Your task to perform on an android device: remove spam from my inbox in the gmail app Image 0: 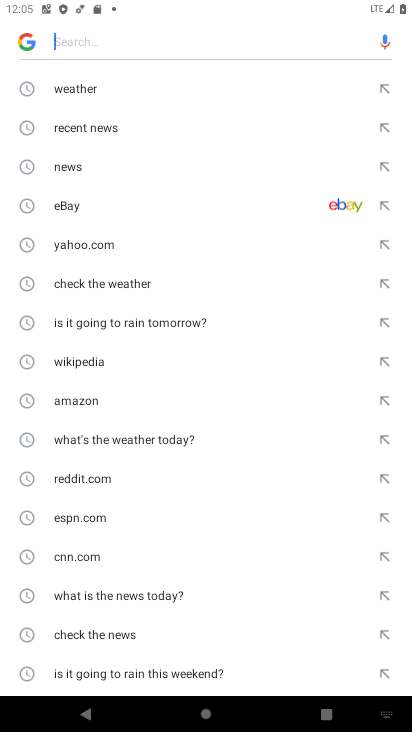
Step 0: press home button
Your task to perform on an android device: remove spam from my inbox in the gmail app Image 1: 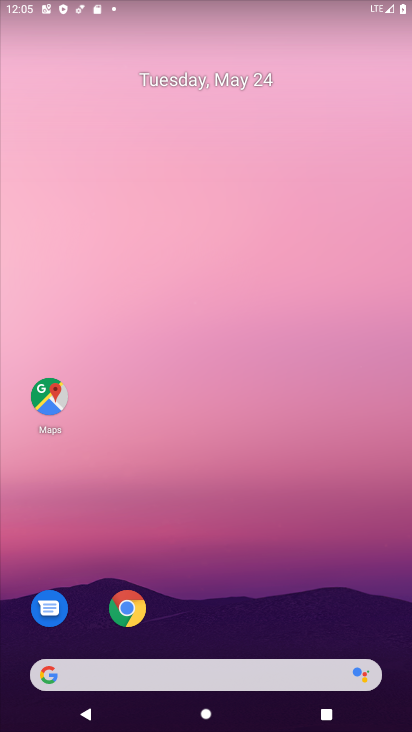
Step 1: drag from (206, 635) to (228, 42)
Your task to perform on an android device: remove spam from my inbox in the gmail app Image 2: 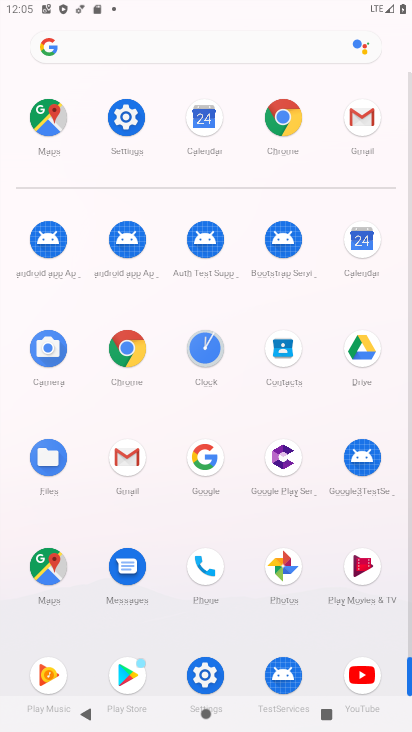
Step 2: click (361, 112)
Your task to perform on an android device: remove spam from my inbox in the gmail app Image 3: 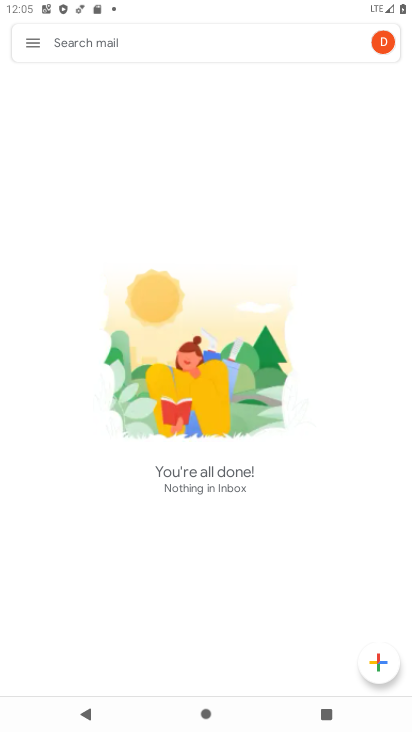
Step 3: click (41, 37)
Your task to perform on an android device: remove spam from my inbox in the gmail app Image 4: 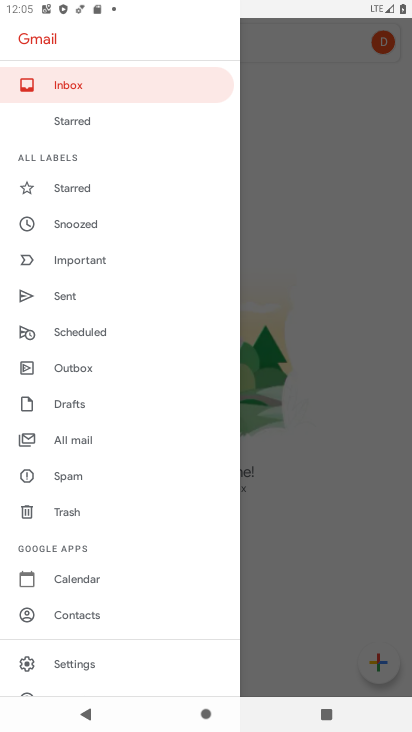
Step 4: click (81, 467)
Your task to perform on an android device: remove spam from my inbox in the gmail app Image 5: 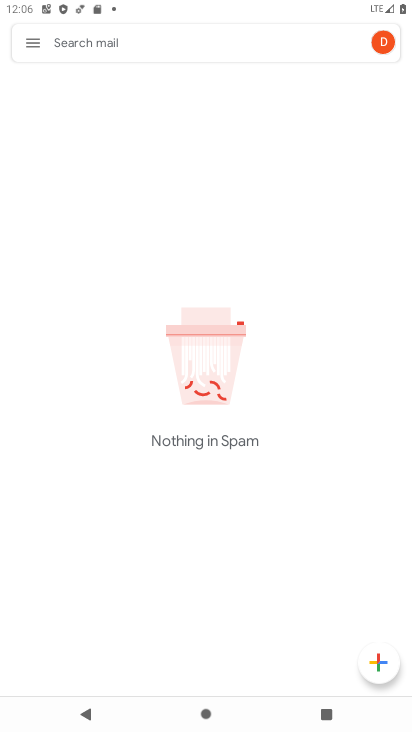
Step 5: task complete